Your task to perform on an android device: change the clock display to digital Image 0: 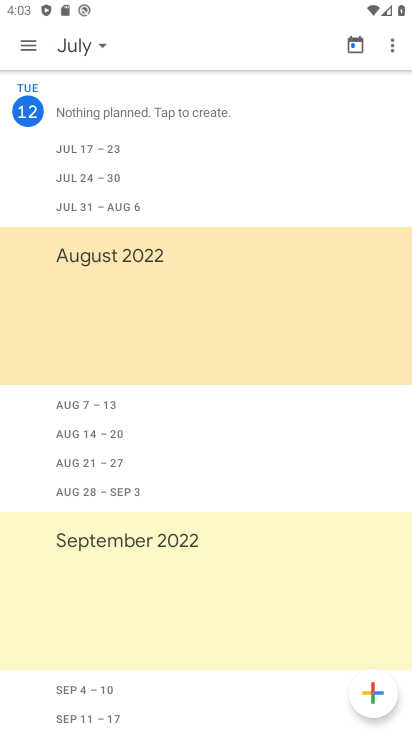
Step 0: press home button
Your task to perform on an android device: change the clock display to digital Image 1: 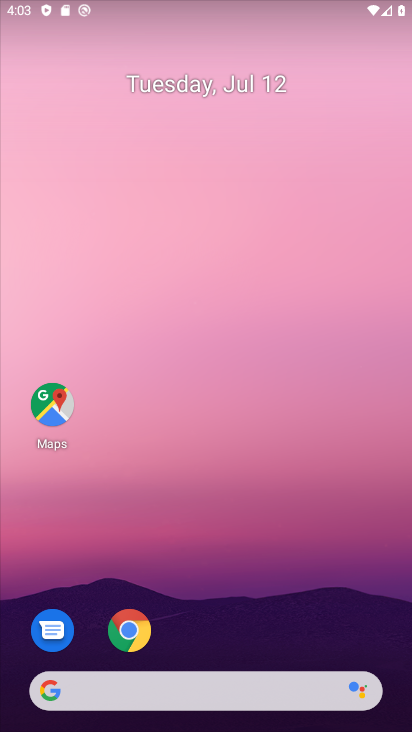
Step 1: drag from (277, 621) to (225, 146)
Your task to perform on an android device: change the clock display to digital Image 2: 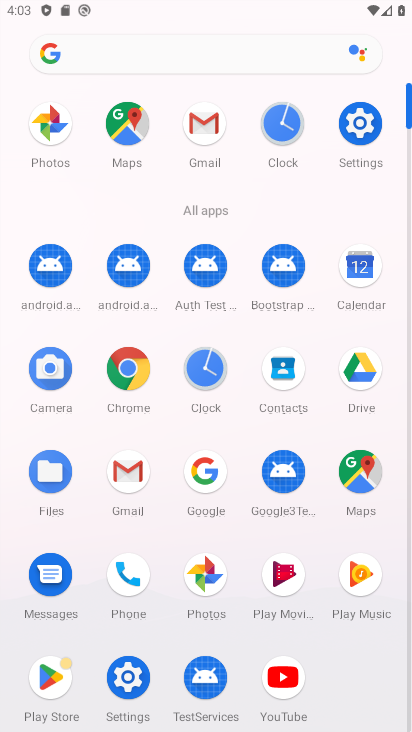
Step 2: click (207, 367)
Your task to perform on an android device: change the clock display to digital Image 3: 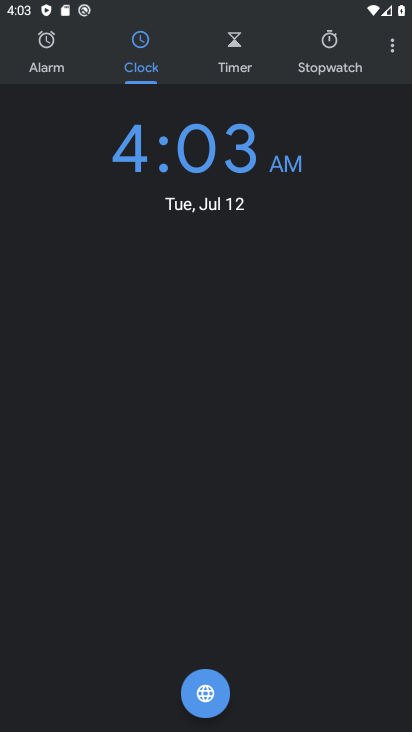
Step 3: click (393, 44)
Your task to perform on an android device: change the clock display to digital Image 4: 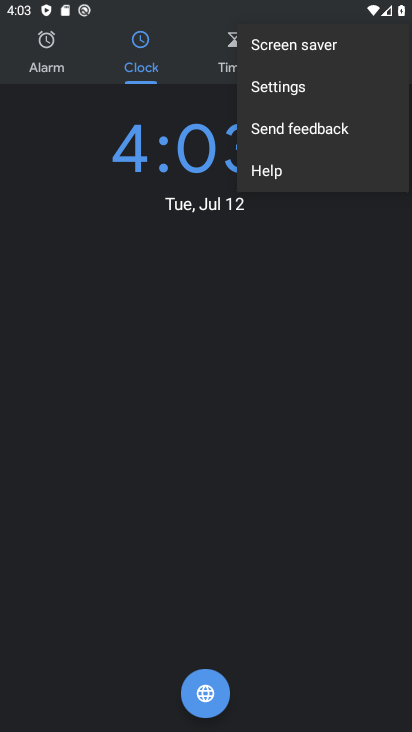
Step 4: click (284, 97)
Your task to perform on an android device: change the clock display to digital Image 5: 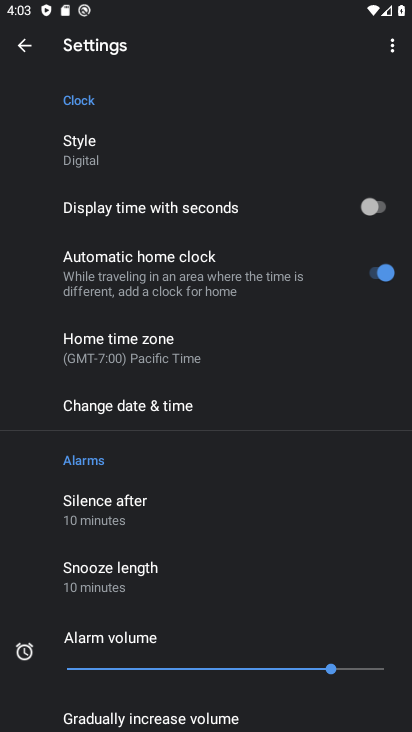
Step 5: task complete